Your task to perform on an android device: Open Google Chrome and click the shortcut for Amazon.com Image 0: 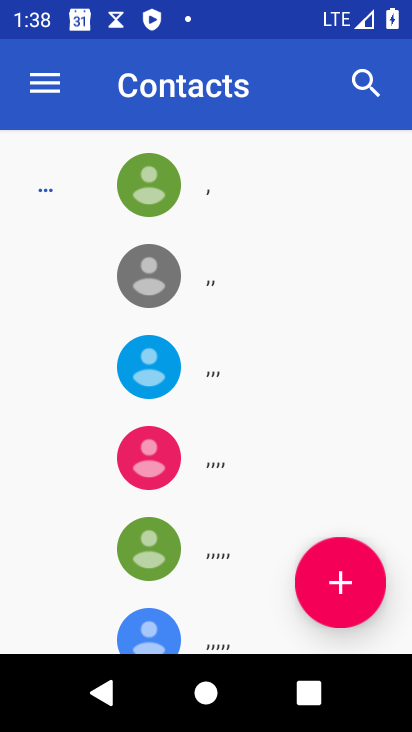
Step 0: press back button
Your task to perform on an android device: Open Google Chrome and click the shortcut for Amazon.com Image 1: 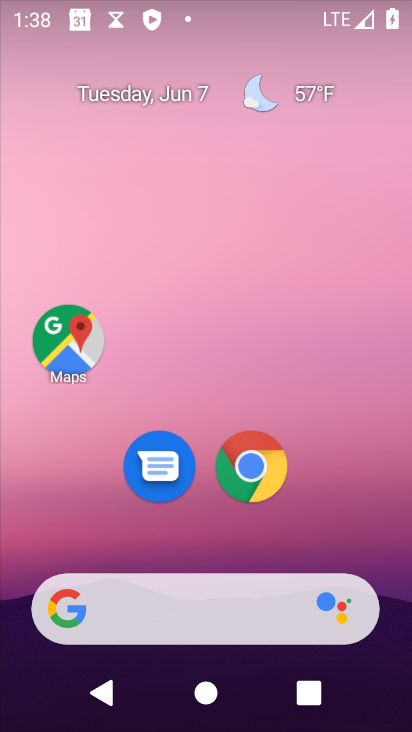
Step 1: drag from (178, 551) to (267, 62)
Your task to perform on an android device: Open Google Chrome and click the shortcut for Amazon.com Image 2: 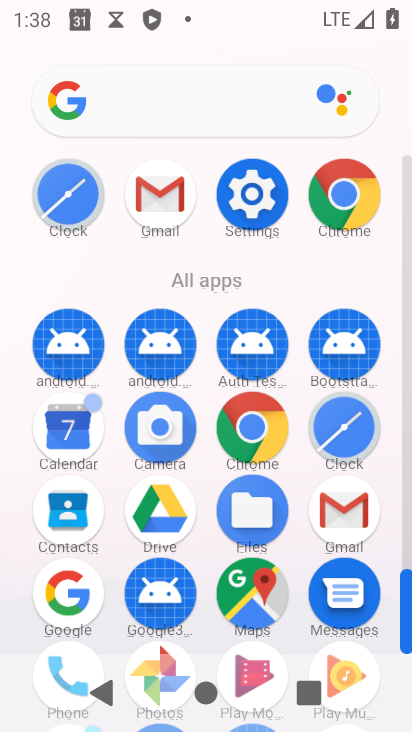
Step 2: click (348, 195)
Your task to perform on an android device: Open Google Chrome and click the shortcut for Amazon.com Image 3: 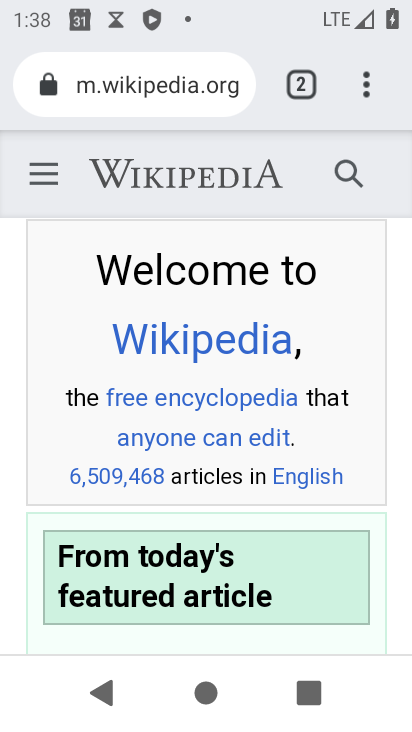
Step 3: click (297, 82)
Your task to perform on an android device: Open Google Chrome and click the shortcut for Amazon.com Image 4: 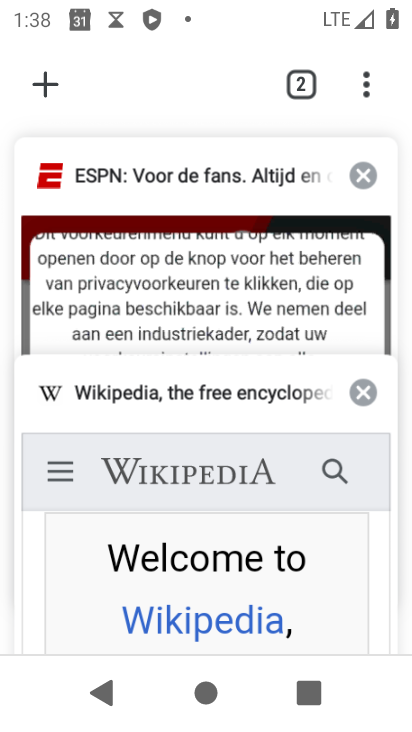
Step 4: click (49, 77)
Your task to perform on an android device: Open Google Chrome and click the shortcut for Amazon.com Image 5: 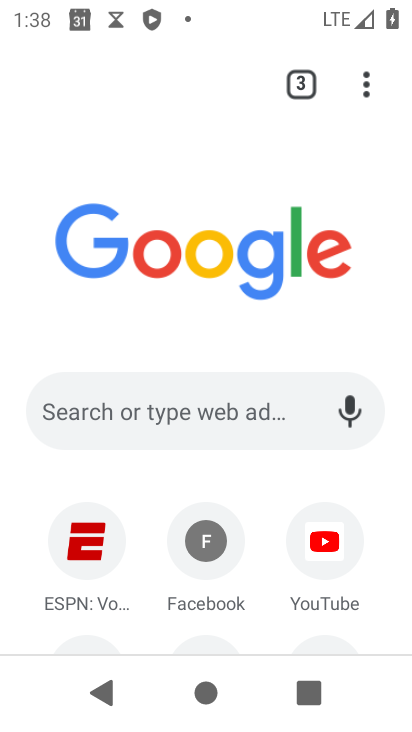
Step 5: drag from (168, 571) to (263, 71)
Your task to perform on an android device: Open Google Chrome and click the shortcut for Amazon.com Image 6: 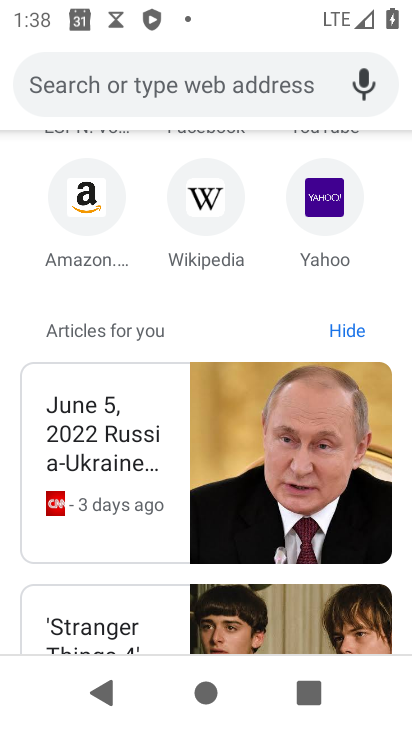
Step 6: click (84, 226)
Your task to perform on an android device: Open Google Chrome and click the shortcut for Amazon.com Image 7: 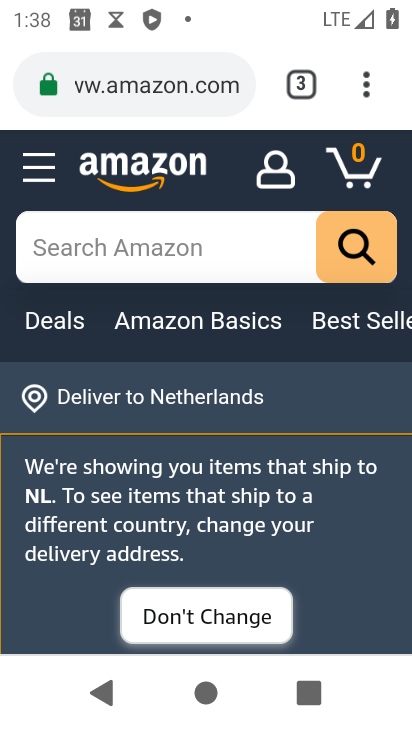
Step 7: task complete